Your task to perform on an android device: turn off improve location accuracy Image 0: 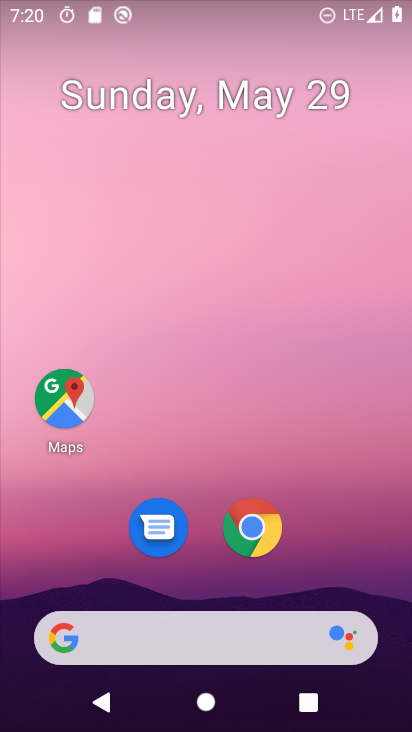
Step 0: drag from (403, 656) to (304, 103)
Your task to perform on an android device: turn off improve location accuracy Image 1: 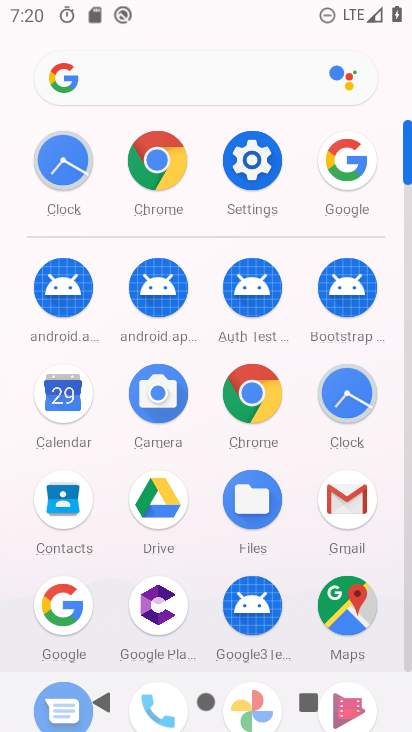
Step 1: click (261, 162)
Your task to perform on an android device: turn off improve location accuracy Image 2: 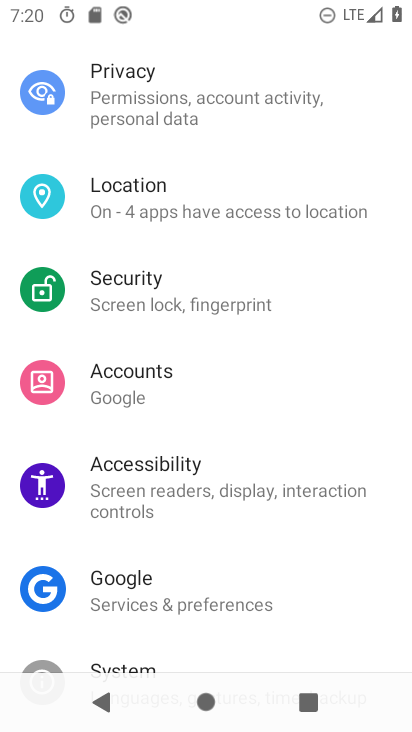
Step 2: drag from (98, 646) to (111, 432)
Your task to perform on an android device: turn off improve location accuracy Image 3: 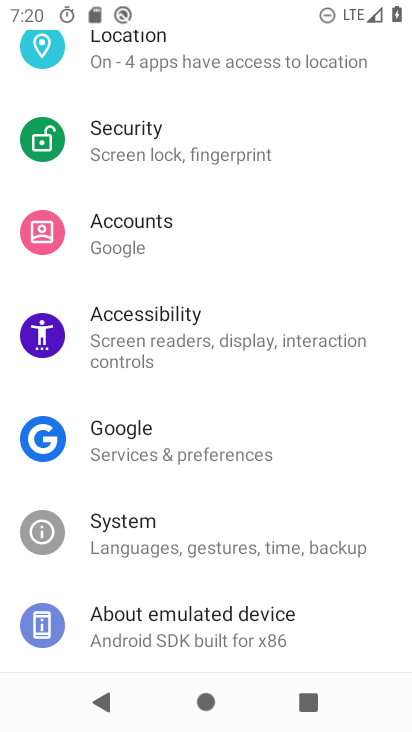
Step 3: click (130, 62)
Your task to perform on an android device: turn off improve location accuracy Image 4: 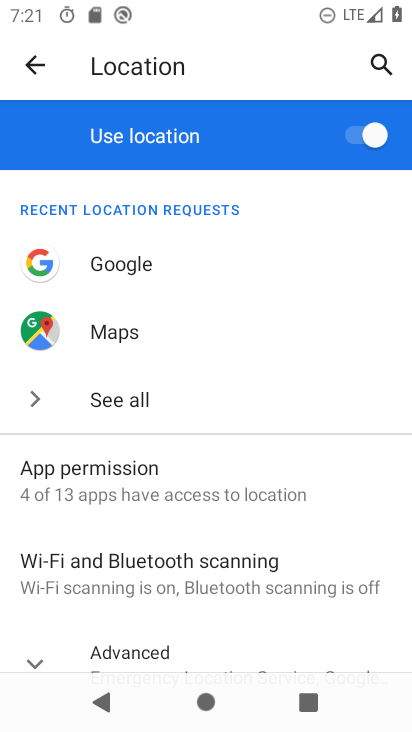
Step 4: drag from (165, 637) to (158, 228)
Your task to perform on an android device: turn off improve location accuracy Image 5: 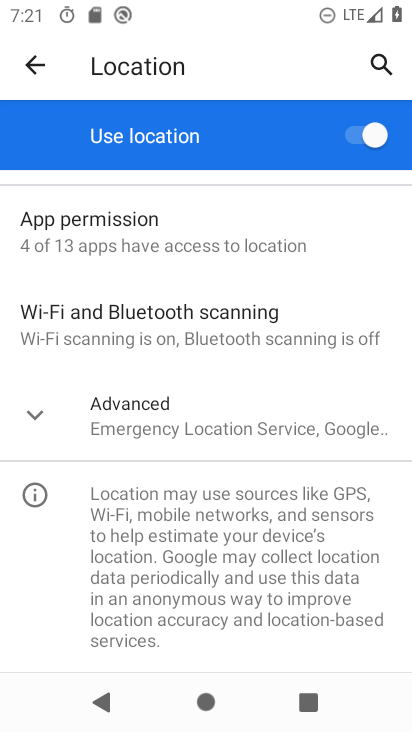
Step 5: click (108, 404)
Your task to perform on an android device: turn off improve location accuracy Image 6: 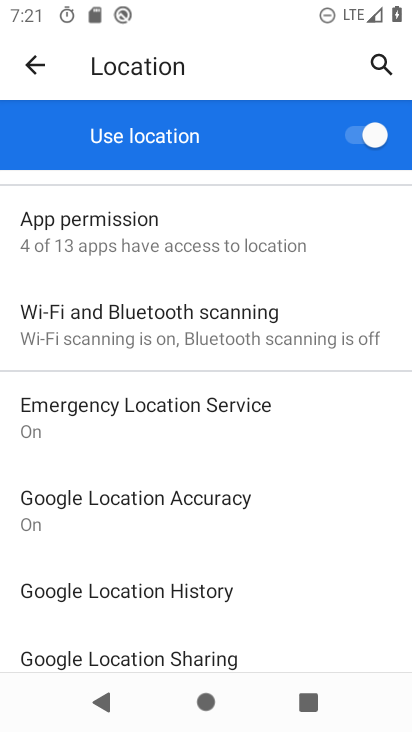
Step 6: click (145, 517)
Your task to perform on an android device: turn off improve location accuracy Image 7: 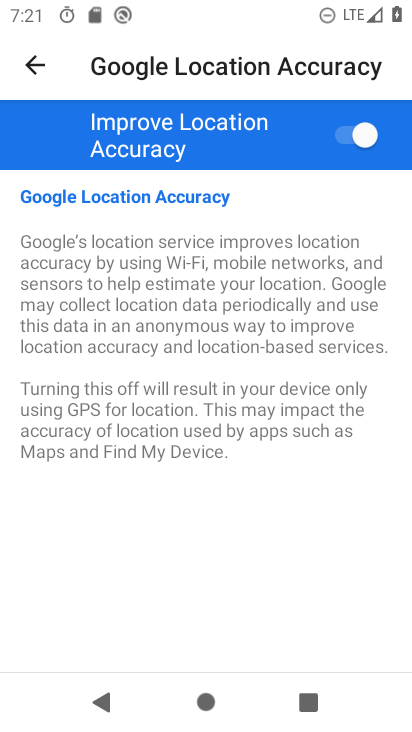
Step 7: click (325, 137)
Your task to perform on an android device: turn off improve location accuracy Image 8: 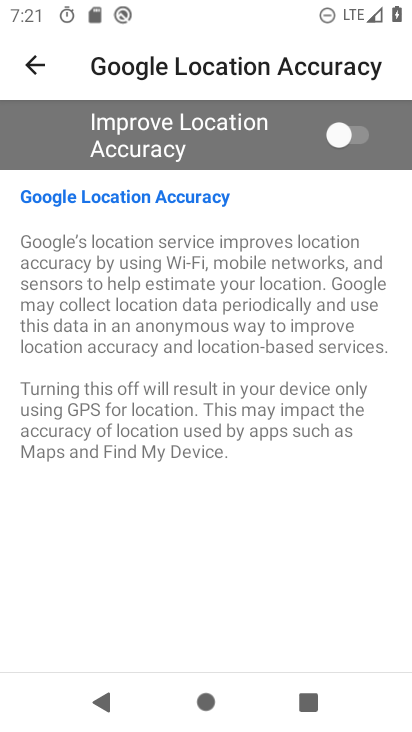
Step 8: task complete